Your task to perform on an android device: Go to calendar. Show me events next week Image 0: 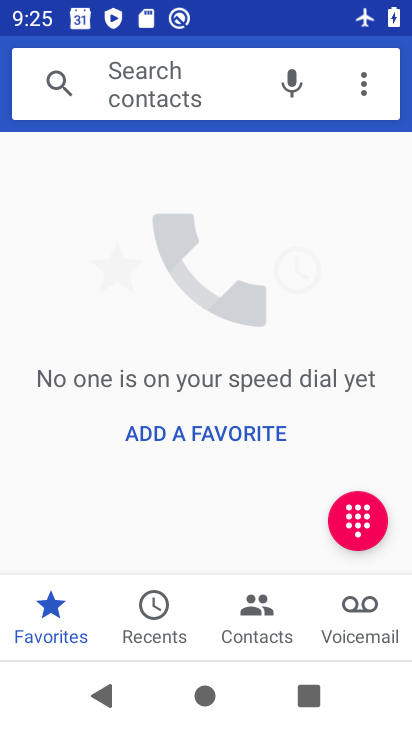
Step 0: drag from (187, 451) to (228, 113)
Your task to perform on an android device: Go to calendar. Show me events next week Image 1: 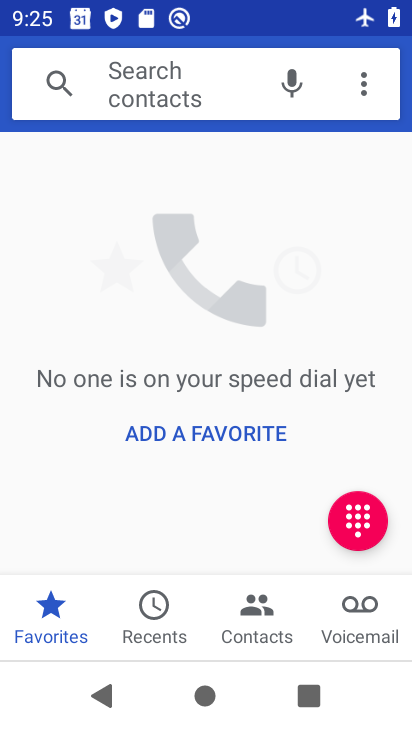
Step 1: click (370, 82)
Your task to perform on an android device: Go to calendar. Show me events next week Image 2: 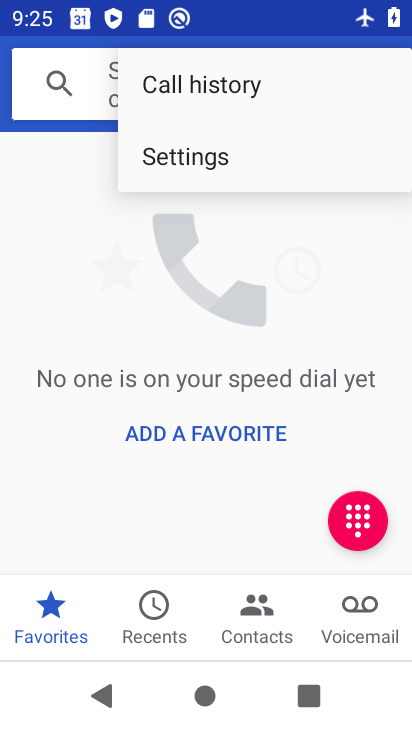
Step 2: click (207, 153)
Your task to perform on an android device: Go to calendar. Show me events next week Image 3: 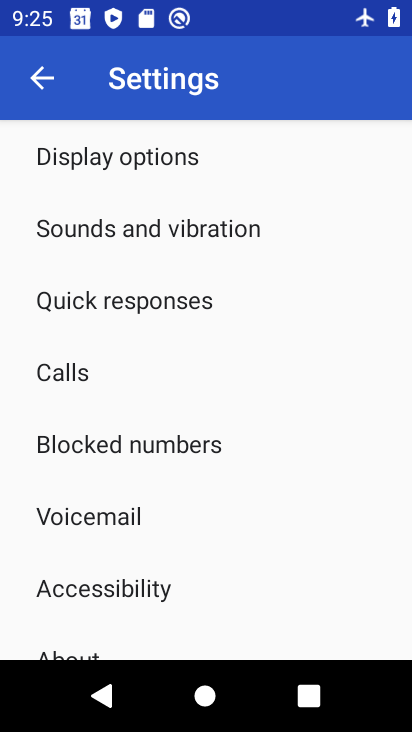
Step 3: drag from (238, 543) to (241, 231)
Your task to perform on an android device: Go to calendar. Show me events next week Image 4: 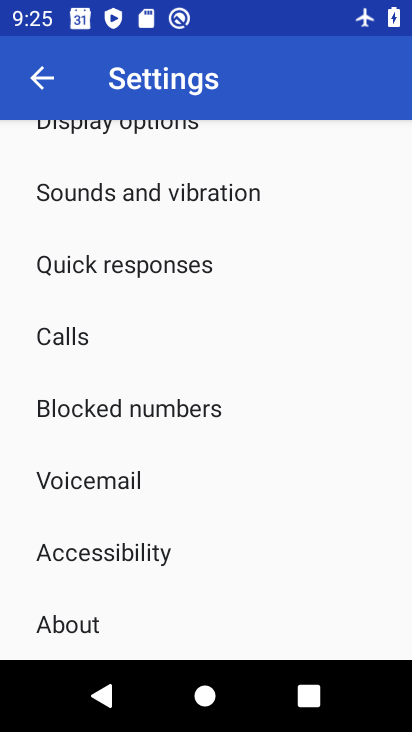
Step 4: drag from (242, 215) to (304, 620)
Your task to perform on an android device: Go to calendar. Show me events next week Image 5: 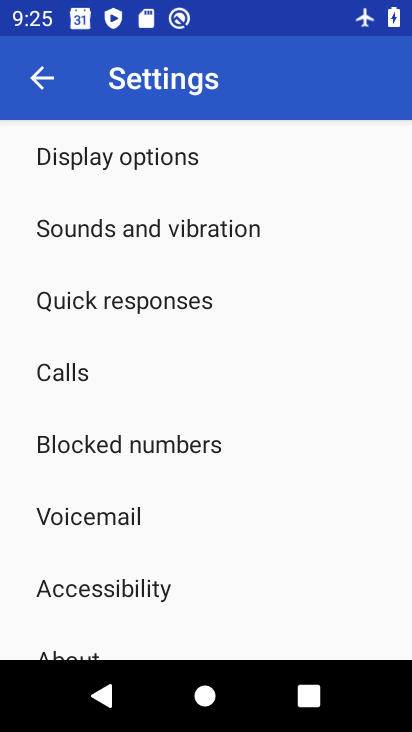
Step 5: drag from (244, 598) to (287, 267)
Your task to perform on an android device: Go to calendar. Show me events next week Image 6: 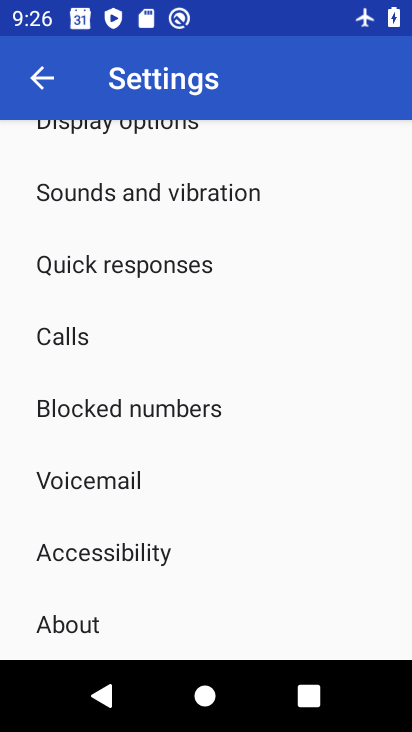
Step 6: press home button
Your task to perform on an android device: Go to calendar. Show me events next week Image 7: 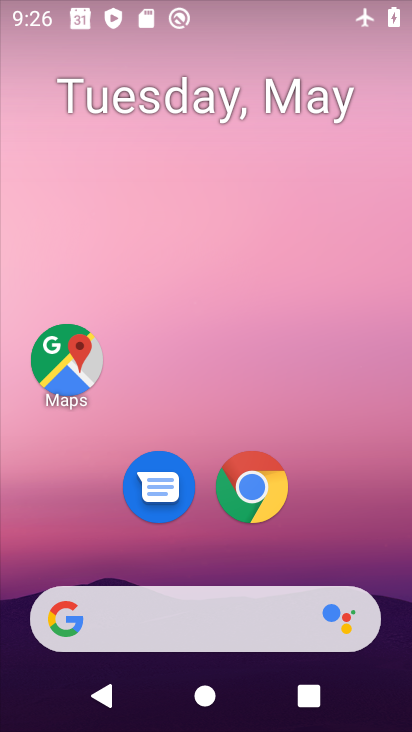
Step 7: drag from (202, 231) to (243, 0)
Your task to perform on an android device: Go to calendar. Show me events next week Image 8: 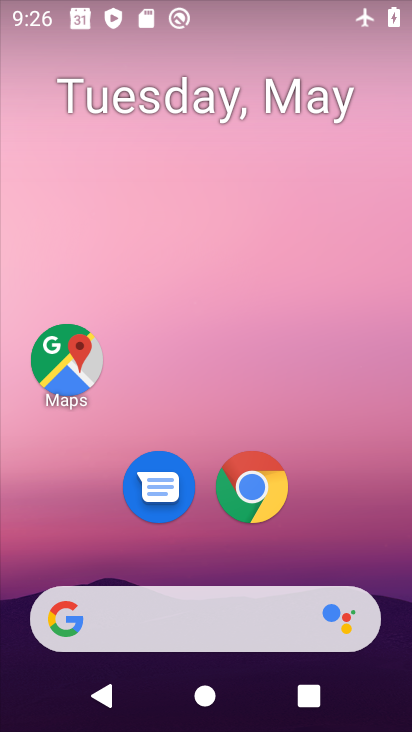
Step 8: drag from (209, 575) to (251, 86)
Your task to perform on an android device: Go to calendar. Show me events next week Image 9: 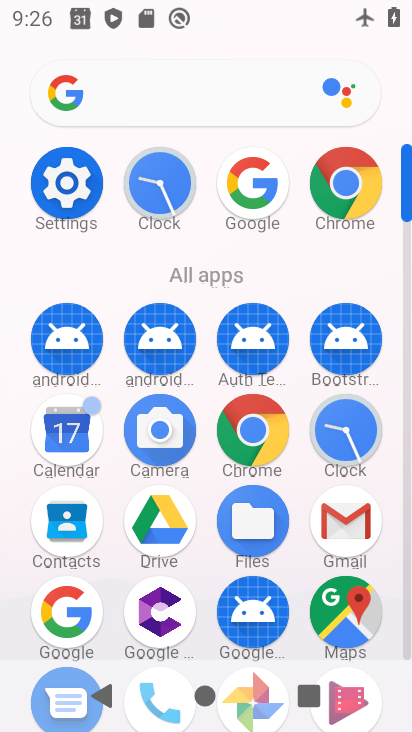
Step 9: click (80, 415)
Your task to perform on an android device: Go to calendar. Show me events next week Image 10: 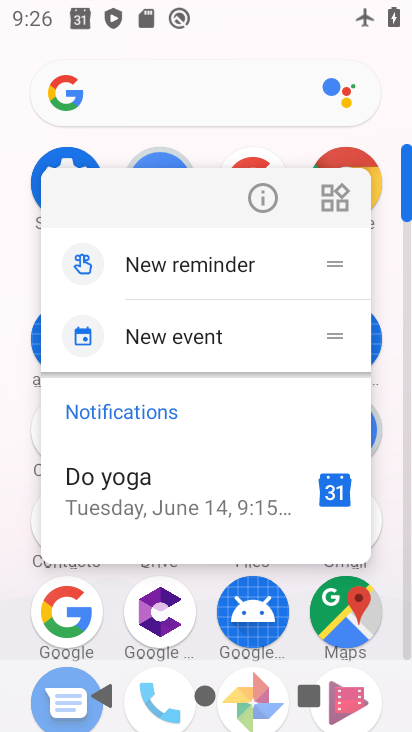
Step 10: click (277, 202)
Your task to perform on an android device: Go to calendar. Show me events next week Image 11: 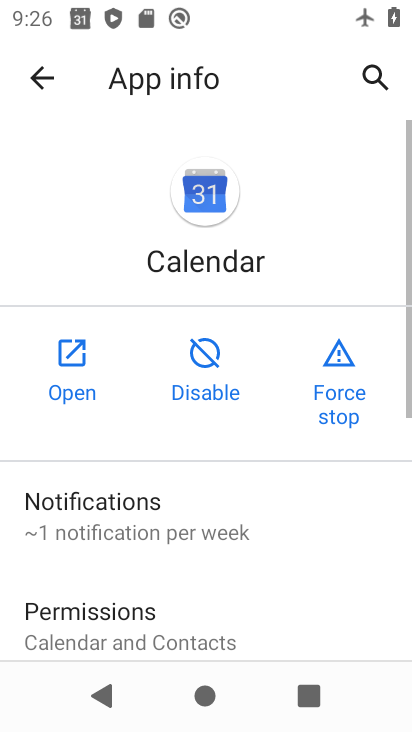
Step 11: click (72, 382)
Your task to perform on an android device: Go to calendar. Show me events next week Image 12: 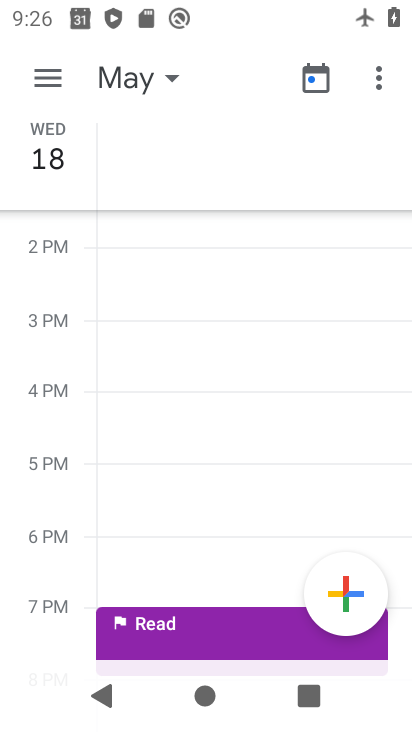
Step 12: click (138, 70)
Your task to perform on an android device: Go to calendar. Show me events next week Image 13: 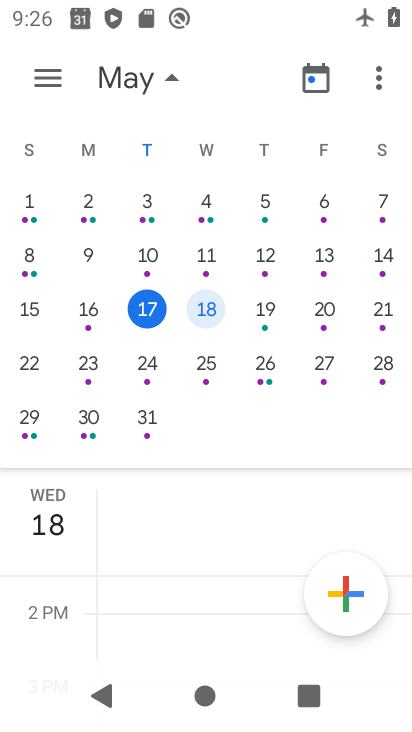
Step 13: click (254, 365)
Your task to perform on an android device: Go to calendar. Show me events next week Image 14: 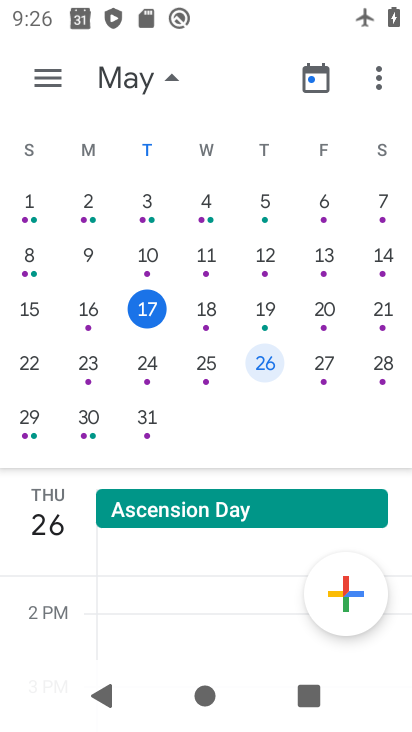
Step 14: task complete